Your task to perform on an android device: turn pop-ups on in chrome Image 0: 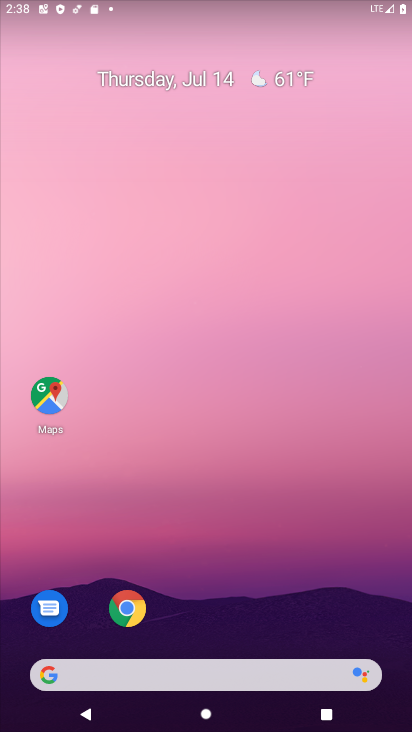
Step 0: click (123, 614)
Your task to perform on an android device: turn pop-ups on in chrome Image 1: 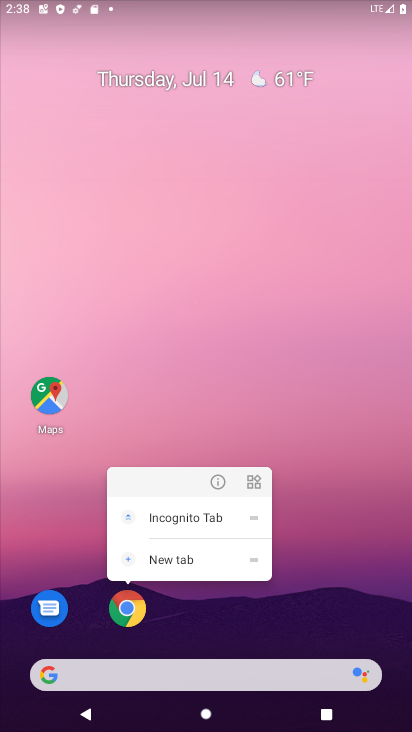
Step 1: click (123, 614)
Your task to perform on an android device: turn pop-ups on in chrome Image 2: 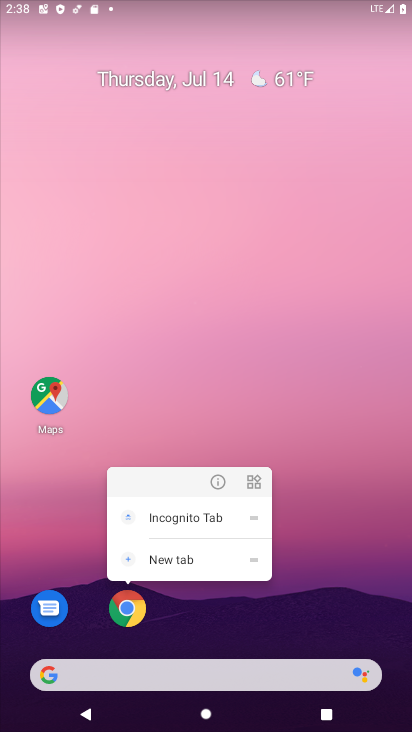
Step 2: click (123, 608)
Your task to perform on an android device: turn pop-ups on in chrome Image 3: 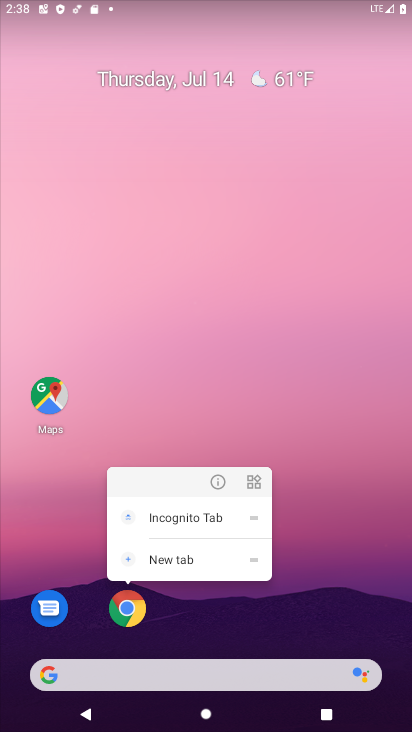
Step 3: click (133, 614)
Your task to perform on an android device: turn pop-ups on in chrome Image 4: 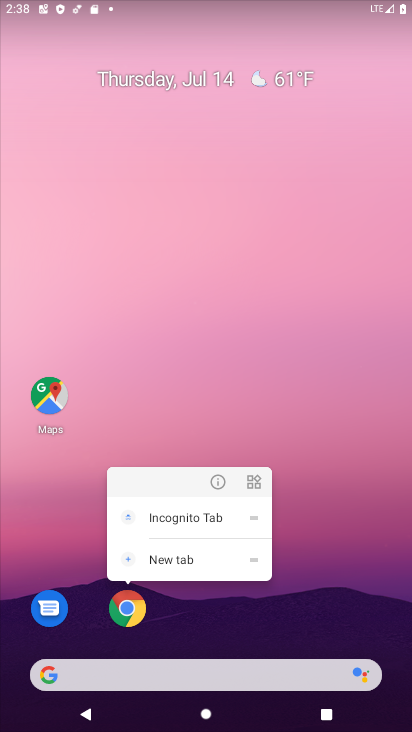
Step 4: click (132, 611)
Your task to perform on an android device: turn pop-ups on in chrome Image 5: 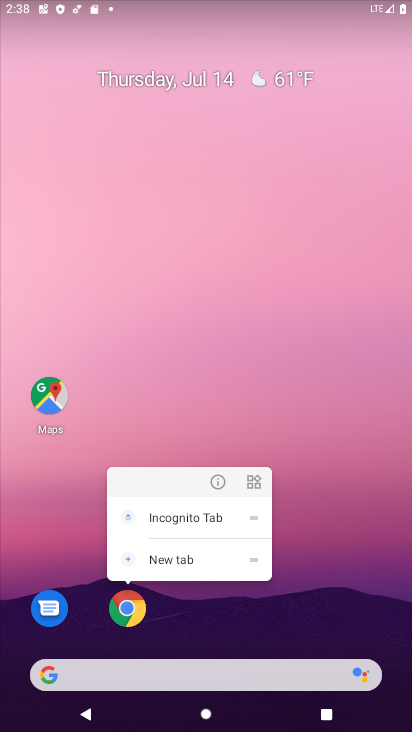
Step 5: click (123, 606)
Your task to perform on an android device: turn pop-ups on in chrome Image 6: 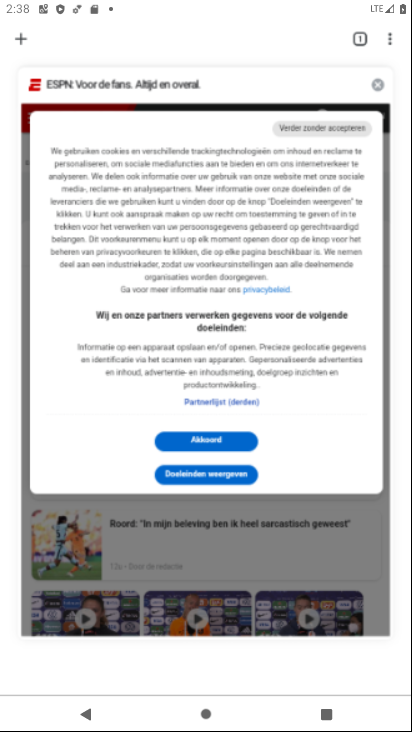
Step 6: click (381, 35)
Your task to perform on an android device: turn pop-ups on in chrome Image 7: 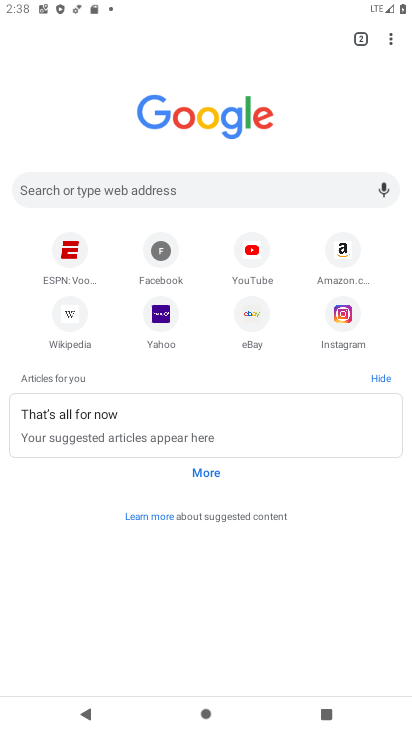
Step 7: click (392, 37)
Your task to perform on an android device: turn pop-ups on in chrome Image 8: 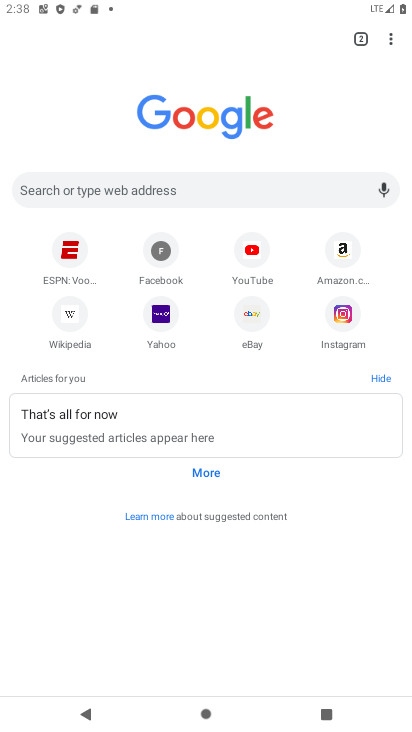
Step 8: click (392, 37)
Your task to perform on an android device: turn pop-ups on in chrome Image 9: 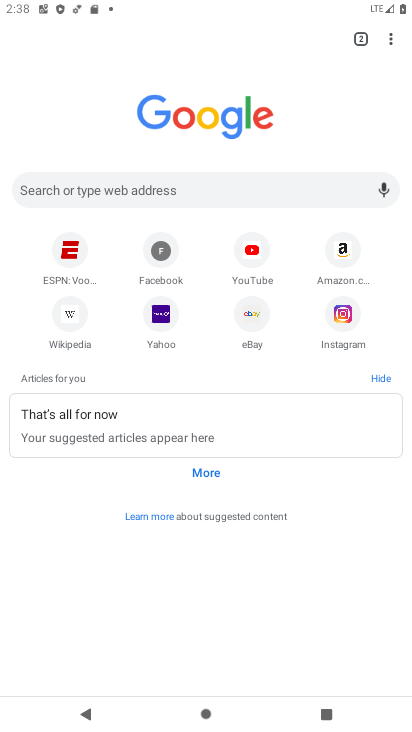
Step 9: click (392, 37)
Your task to perform on an android device: turn pop-ups on in chrome Image 10: 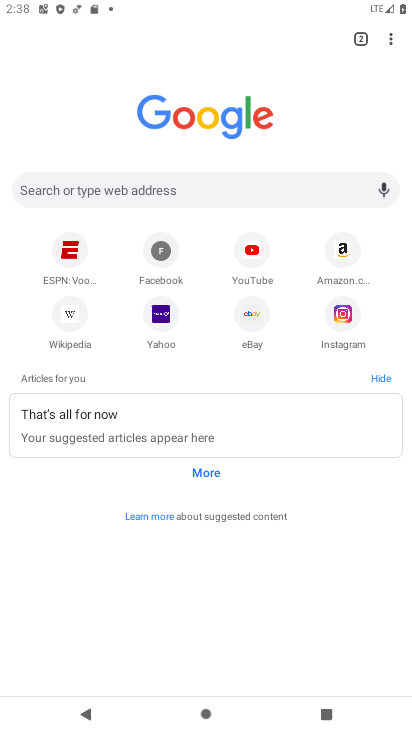
Step 10: click (392, 37)
Your task to perform on an android device: turn pop-ups on in chrome Image 11: 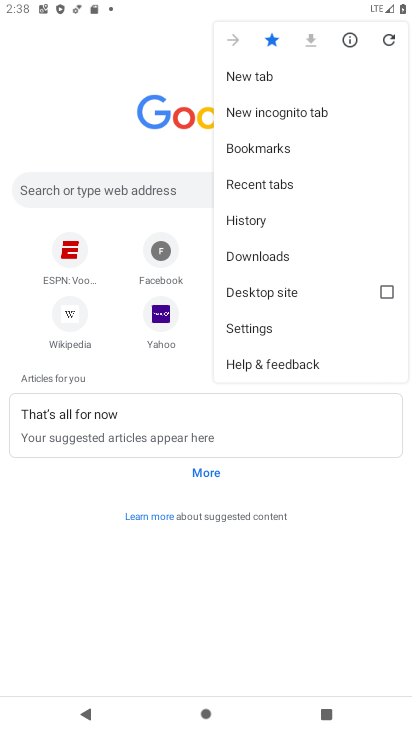
Step 11: click (235, 335)
Your task to perform on an android device: turn pop-ups on in chrome Image 12: 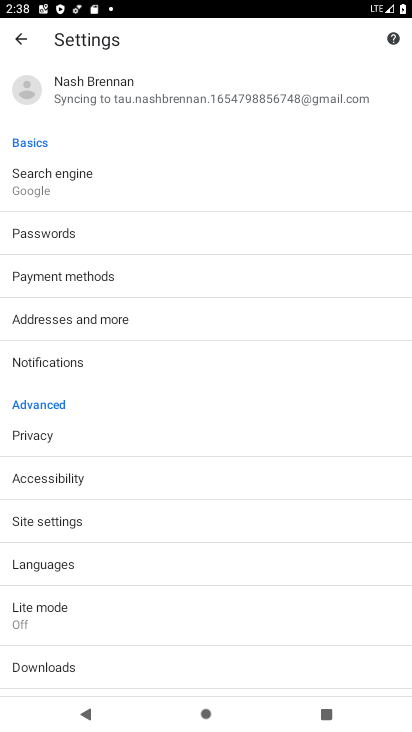
Step 12: drag from (84, 666) to (103, 325)
Your task to perform on an android device: turn pop-ups on in chrome Image 13: 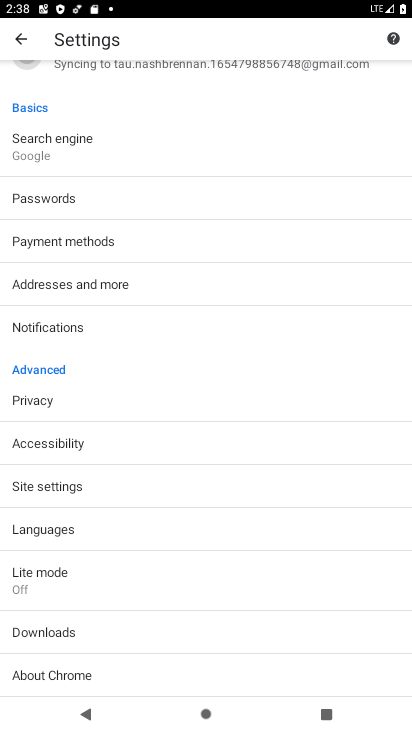
Step 13: click (38, 484)
Your task to perform on an android device: turn pop-ups on in chrome Image 14: 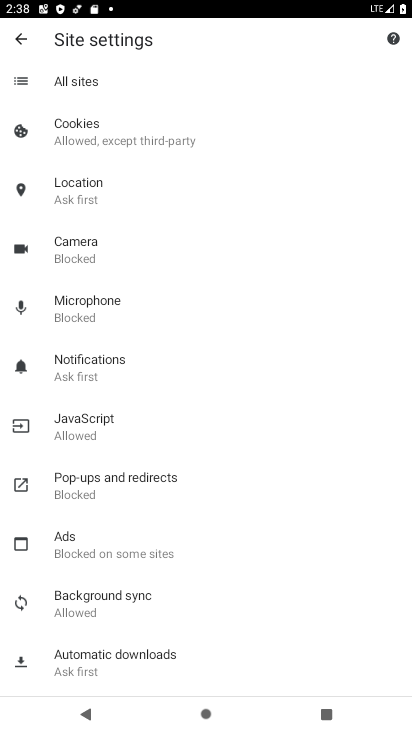
Step 14: click (111, 485)
Your task to perform on an android device: turn pop-ups on in chrome Image 15: 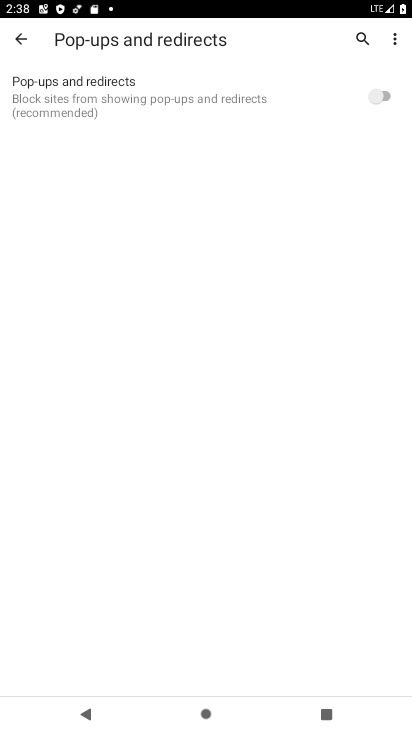
Step 15: click (385, 90)
Your task to perform on an android device: turn pop-ups on in chrome Image 16: 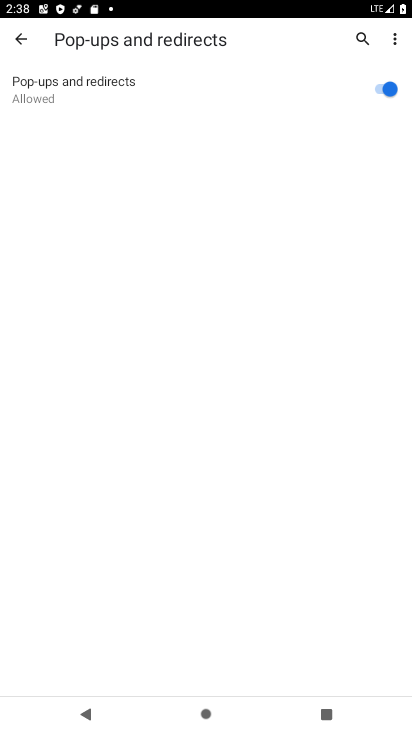
Step 16: task complete